Your task to perform on an android device: empty trash in the gmail app Image 0: 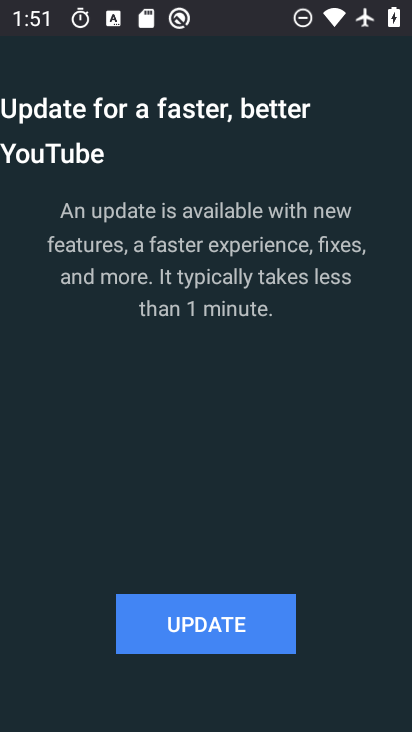
Step 0: press home button
Your task to perform on an android device: empty trash in the gmail app Image 1: 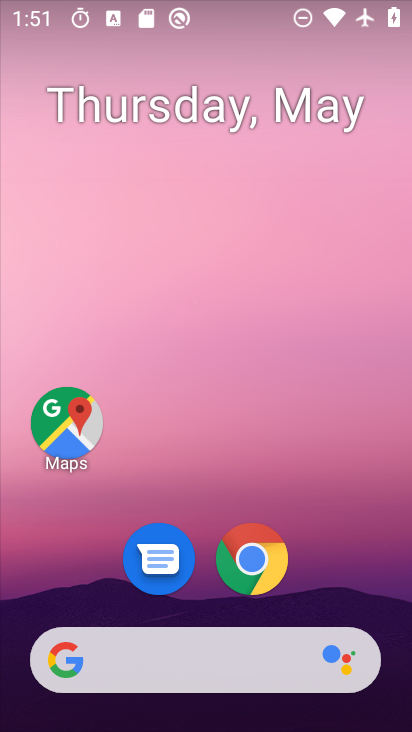
Step 1: drag from (243, 627) to (305, 87)
Your task to perform on an android device: empty trash in the gmail app Image 2: 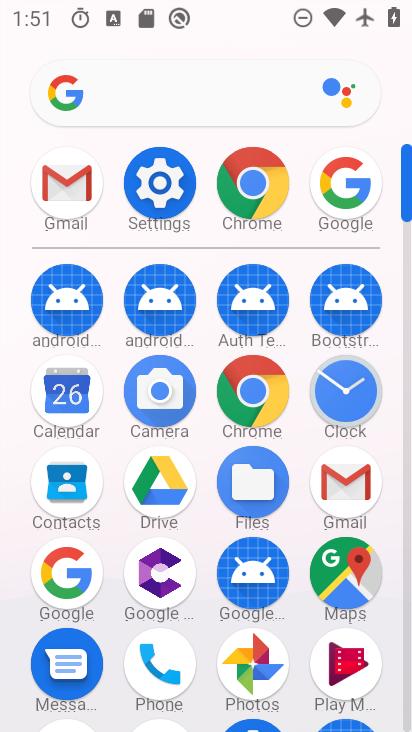
Step 2: click (349, 487)
Your task to perform on an android device: empty trash in the gmail app Image 3: 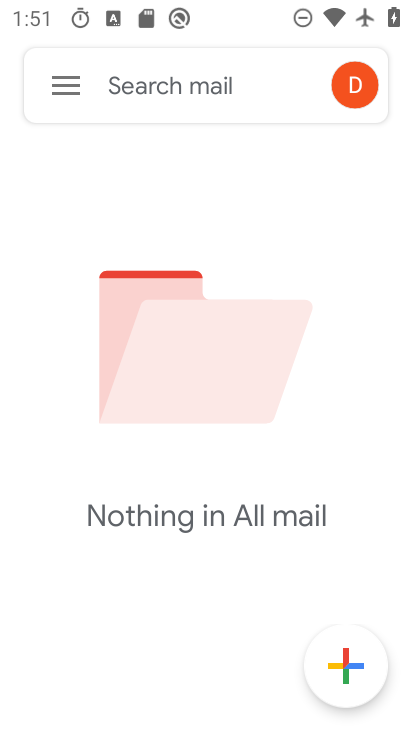
Step 3: click (73, 102)
Your task to perform on an android device: empty trash in the gmail app Image 4: 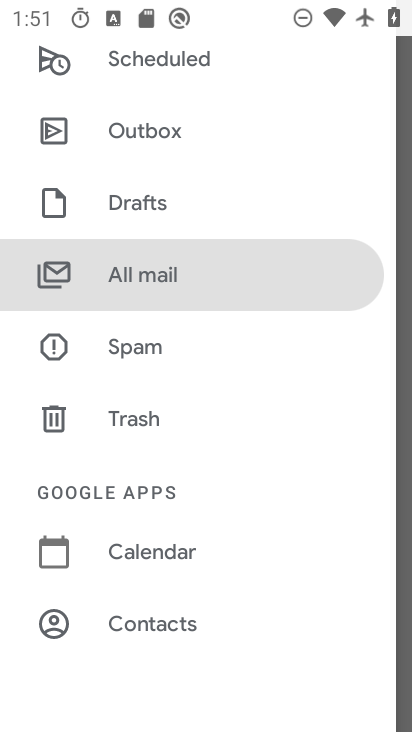
Step 4: click (174, 427)
Your task to perform on an android device: empty trash in the gmail app Image 5: 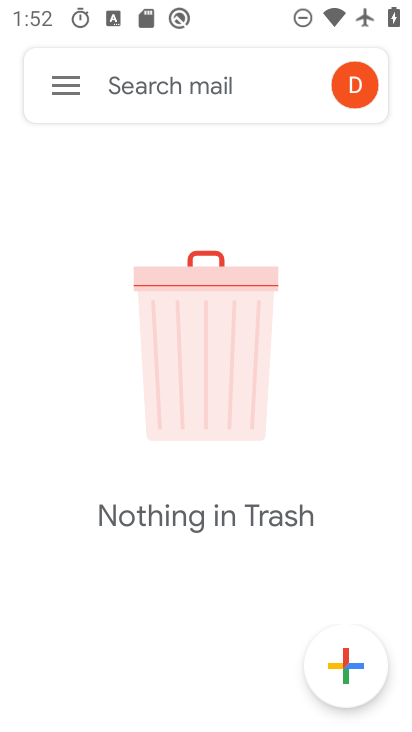
Step 5: task complete